Your task to perform on an android device: Open settings Image 0: 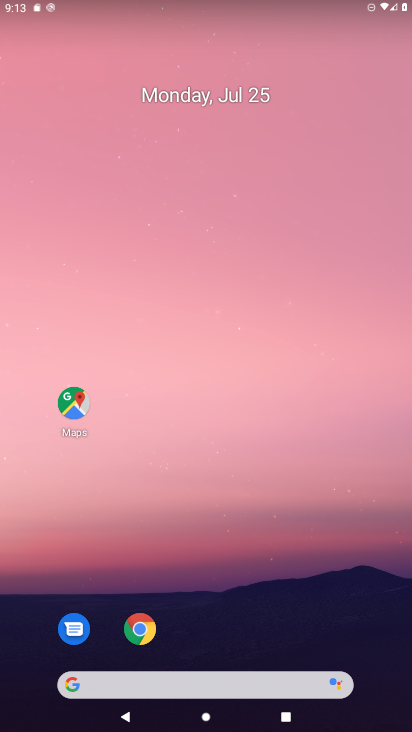
Step 0: drag from (234, 674) to (256, 26)
Your task to perform on an android device: Open settings Image 1: 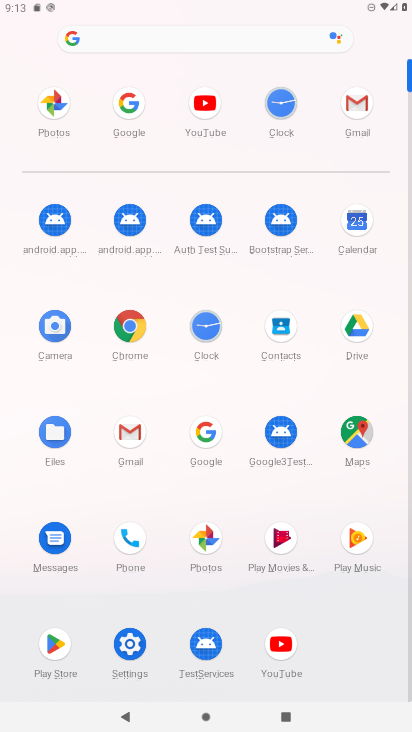
Step 1: click (129, 651)
Your task to perform on an android device: Open settings Image 2: 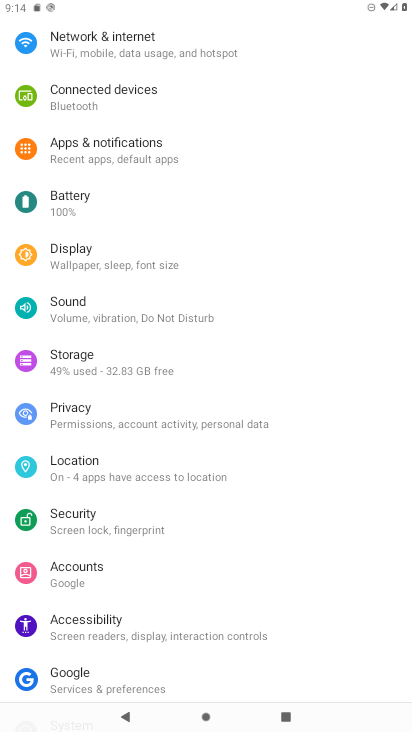
Step 2: task complete